Your task to perform on an android device: Go to Google maps Image 0: 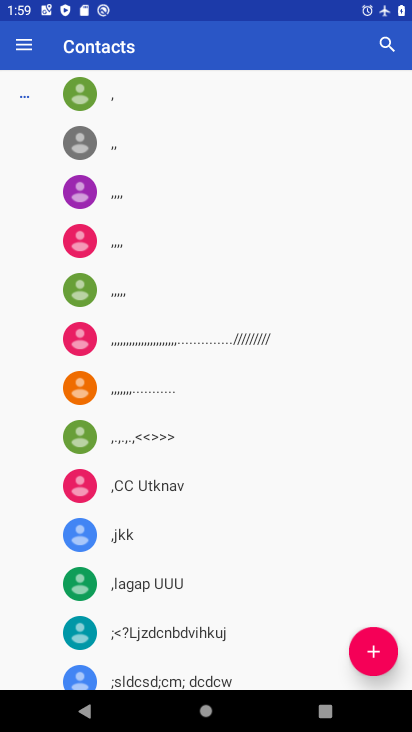
Step 0: press home button
Your task to perform on an android device: Go to Google maps Image 1: 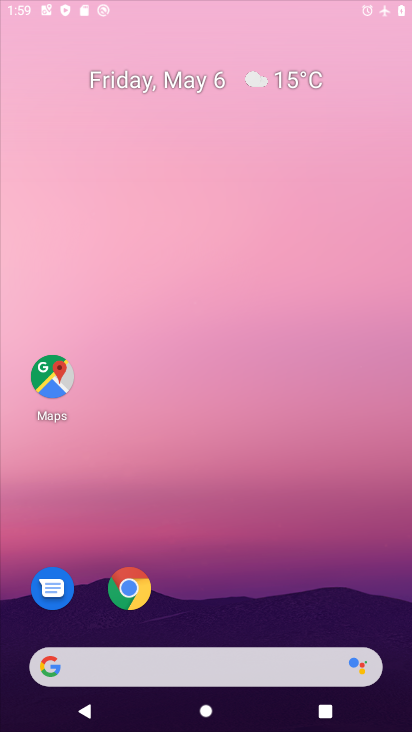
Step 1: drag from (233, 568) to (282, 127)
Your task to perform on an android device: Go to Google maps Image 2: 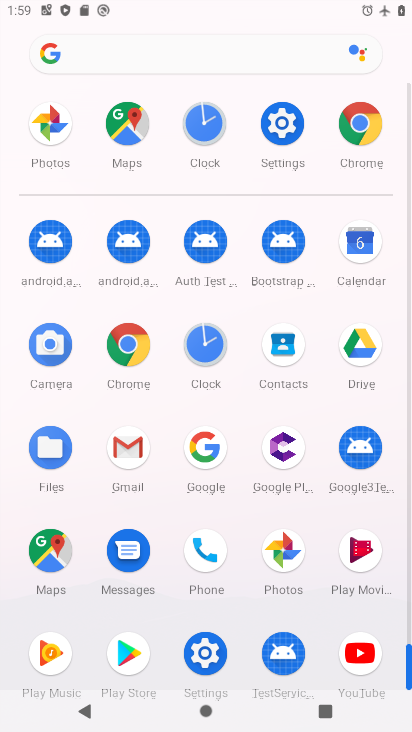
Step 2: click (117, 114)
Your task to perform on an android device: Go to Google maps Image 3: 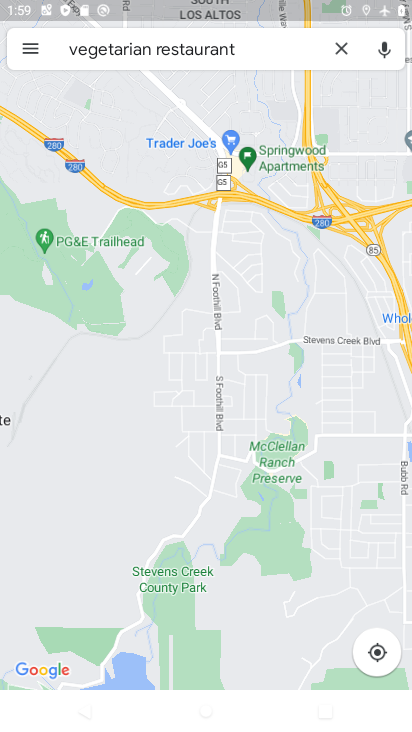
Step 3: task complete